Your task to perform on an android device: Empty the shopping cart on target. Image 0: 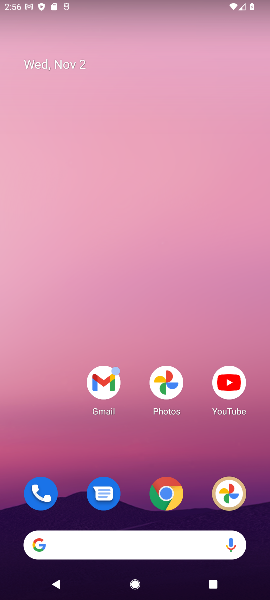
Step 0: click (174, 492)
Your task to perform on an android device: Empty the shopping cart on target. Image 1: 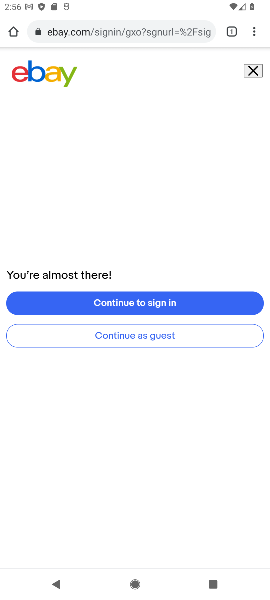
Step 1: click (171, 29)
Your task to perform on an android device: Empty the shopping cart on target. Image 2: 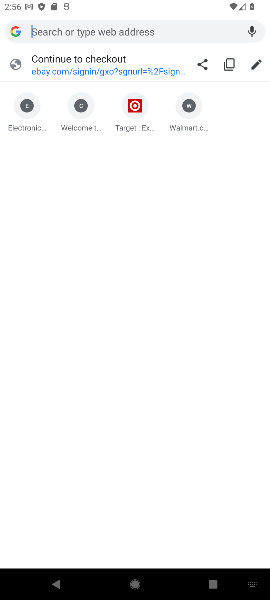
Step 2: click (123, 100)
Your task to perform on an android device: Empty the shopping cart on target. Image 3: 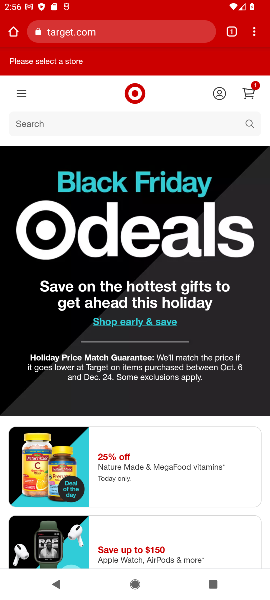
Step 3: click (248, 90)
Your task to perform on an android device: Empty the shopping cart on target. Image 4: 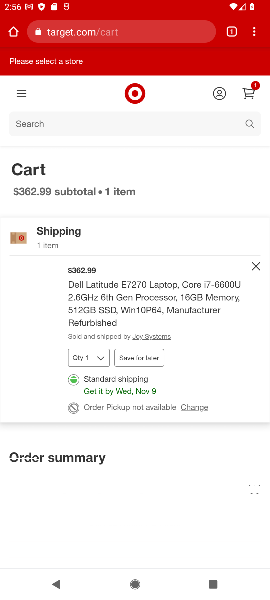
Step 4: click (255, 267)
Your task to perform on an android device: Empty the shopping cart on target. Image 5: 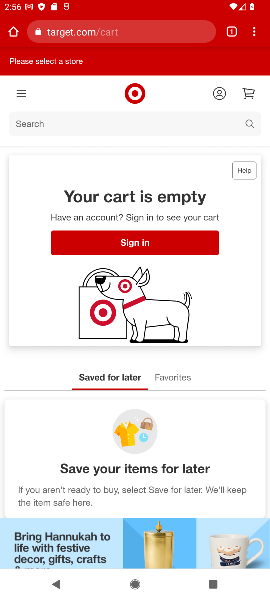
Step 5: task complete